Your task to perform on an android device: Go to location settings Image 0: 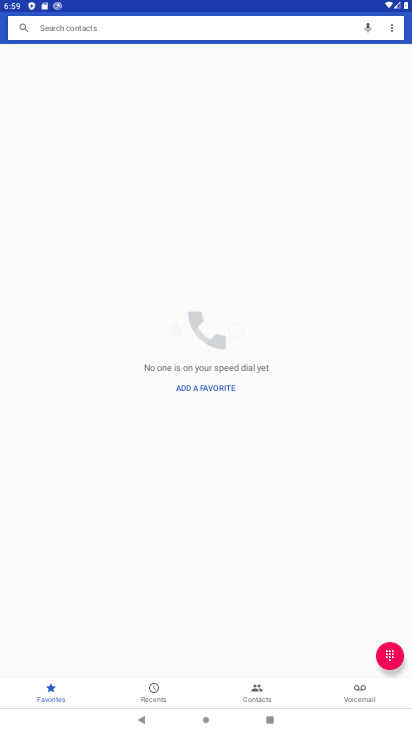
Step 0: press home button
Your task to perform on an android device: Go to location settings Image 1: 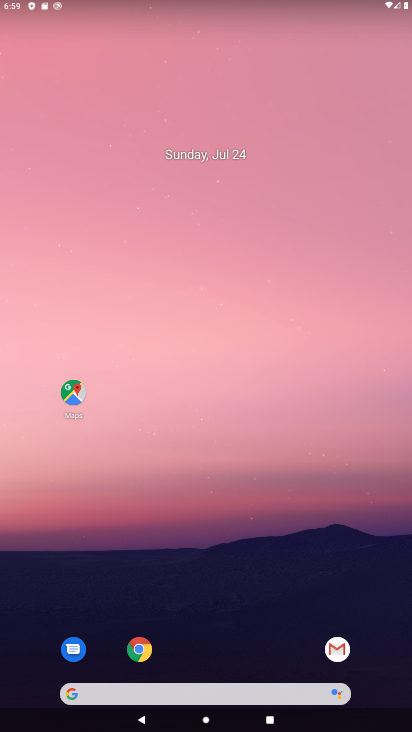
Step 1: drag from (314, 695) to (291, 277)
Your task to perform on an android device: Go to location settings Image 2: 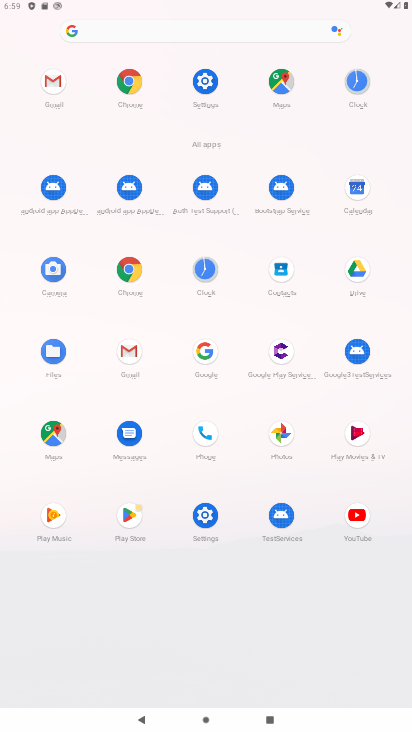
Step 2: click (197, 524)
Your task to perform on an android device: Go to location settings Image 3: 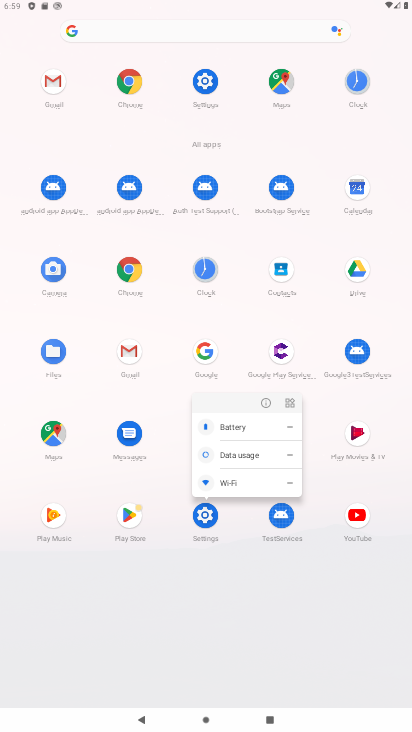
Step 3: click (196, 517)
Your task to perform on an android device: Go to location settings Image 4: 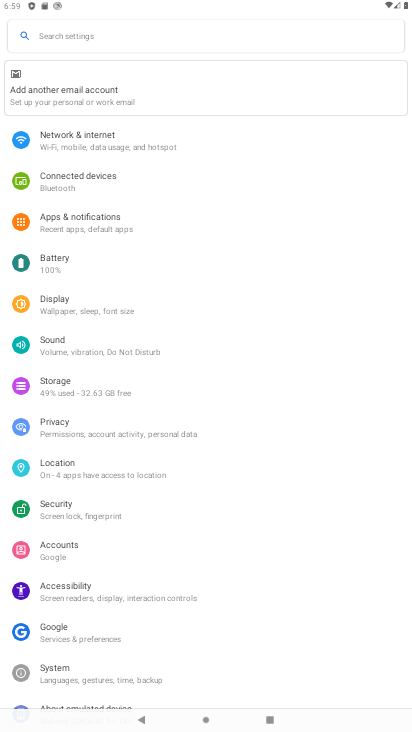
Step 4: click (74, 464)
Your task to perform on an android device: Go to location settings Image 5: 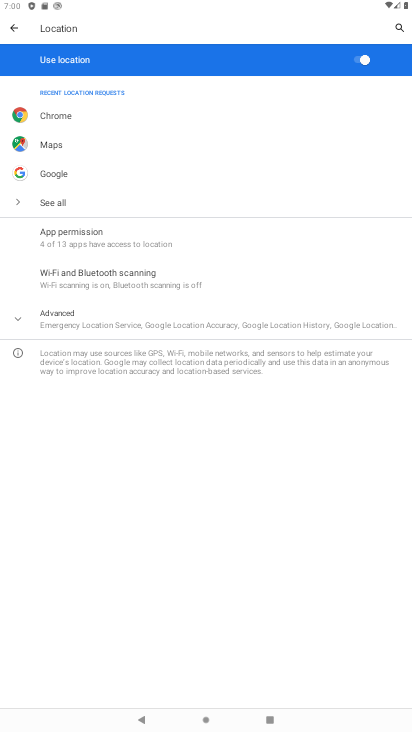
Step 5: task complete